Your task to perform on an android device: toggle wifi Image 0: 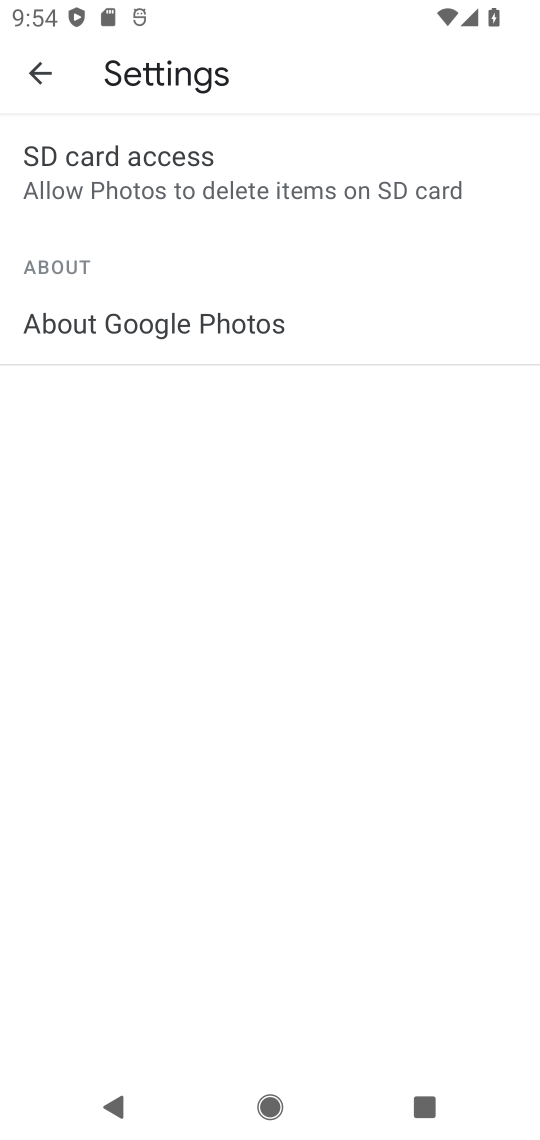
Step 0: press home button
Your task to perform on an android device: toggle wifi Image 1: 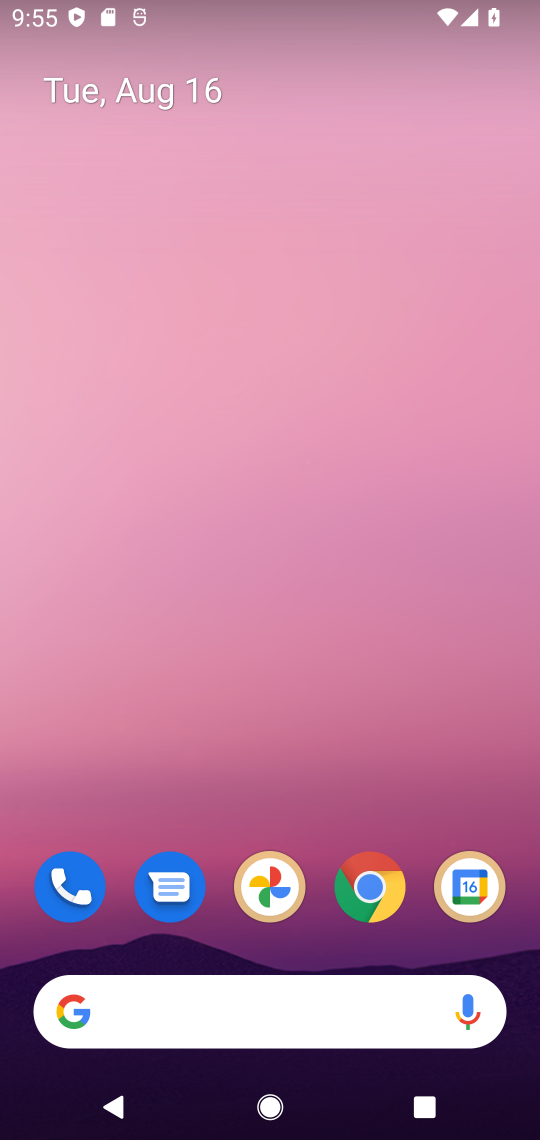
Step 1: drag from (497, 787) to (470, 221)
Your task to perform on an android device: toggle wifi Image 2: 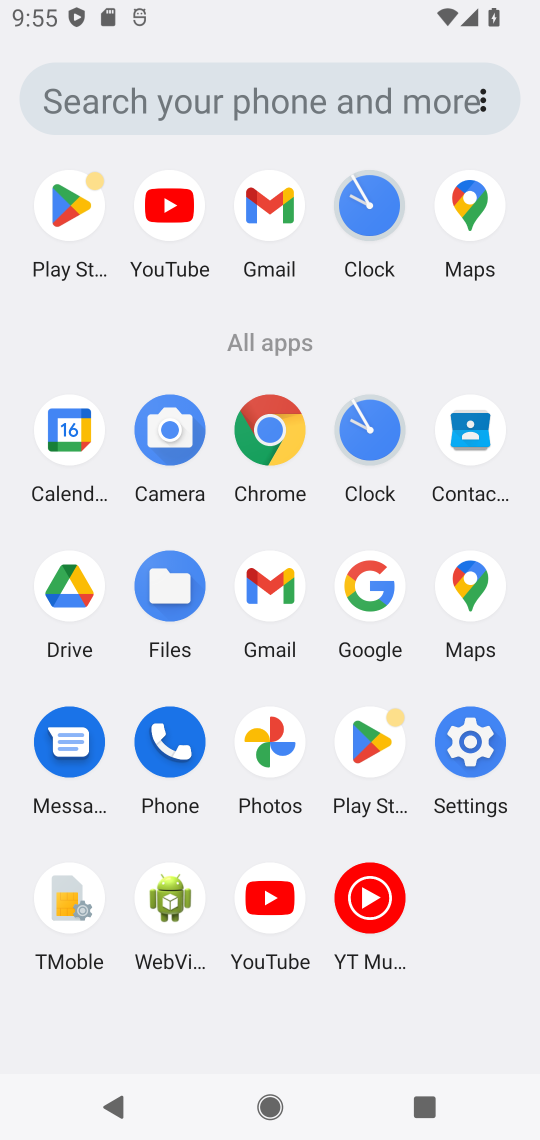
Step 2: click (476, 739)
Your task to perform on an android device: toggle wifi Image 3: 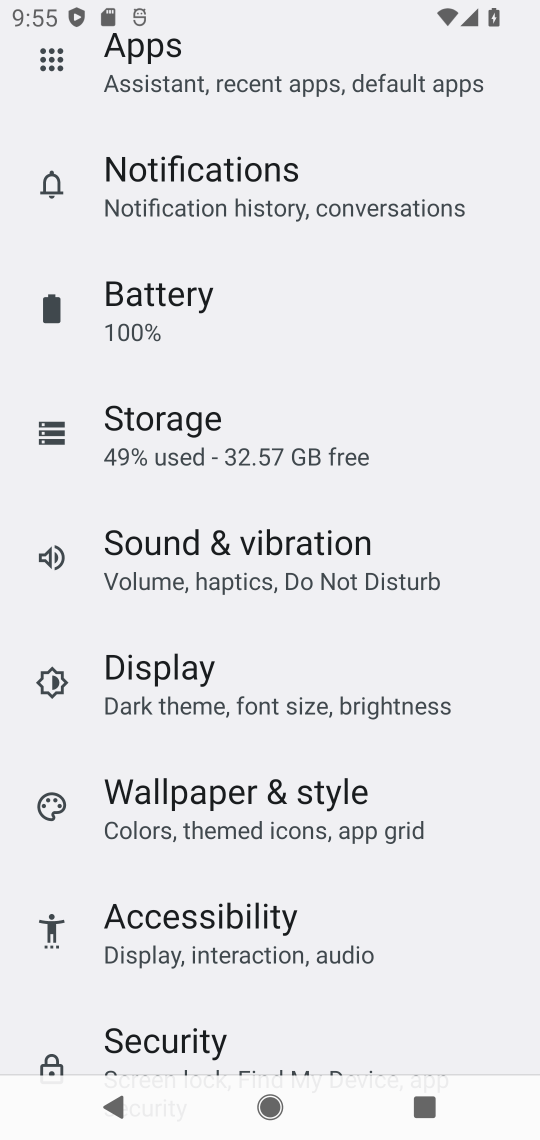
Step 3: drag from (463, 933) to (481, 797)
Your task to perform on an android device: toggle wifi Image 4: 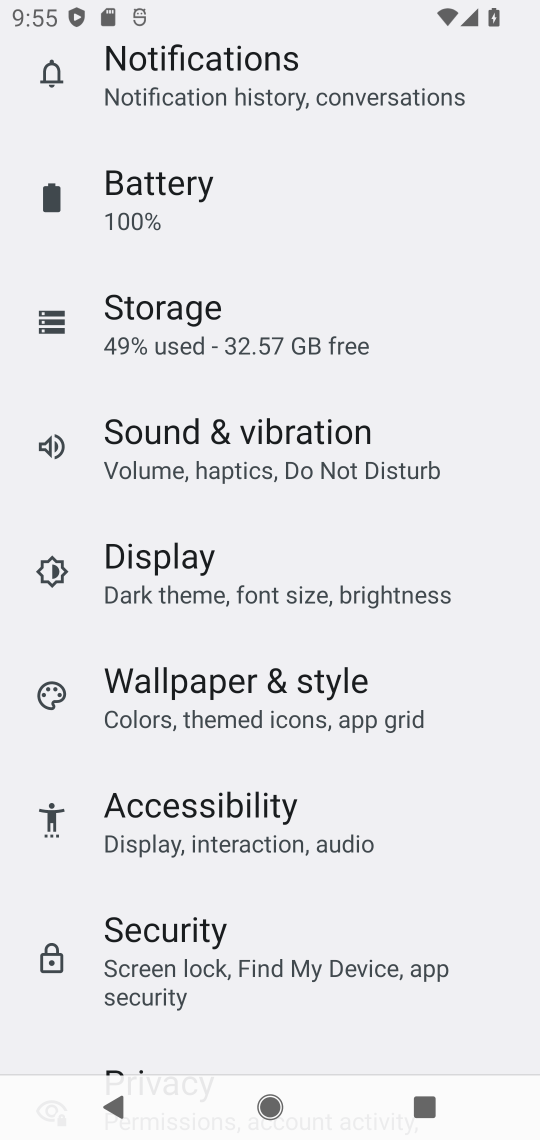
Step 4: drag from (472, 996) to (505, 766)
Your task to perform on an android device: toggle wifi Image 5: 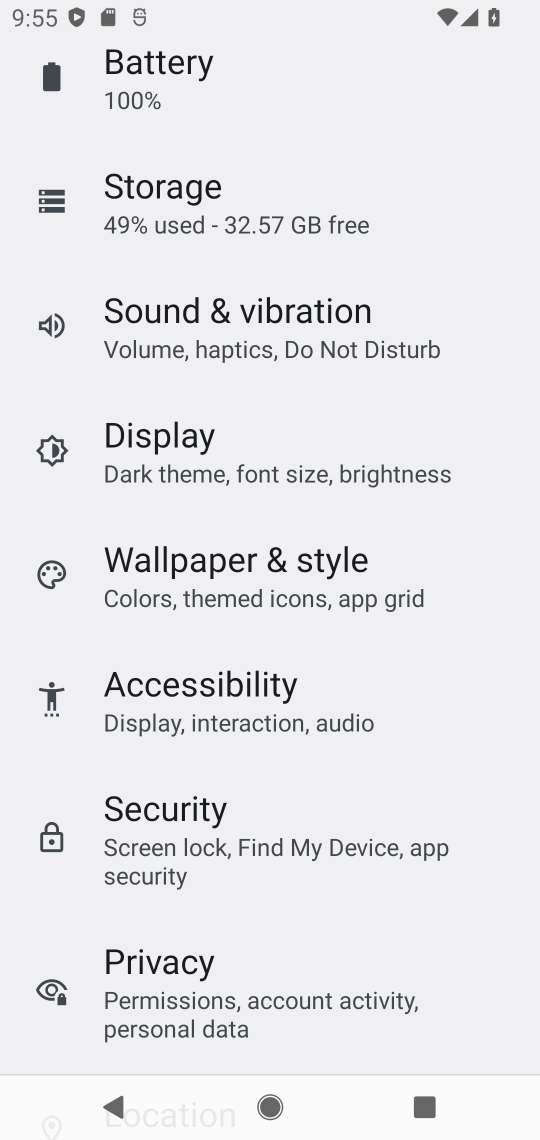
Step 5: drag from (456, 957) to (400, 753)
Your task to perform on an android device: toggle wifi Image 6: 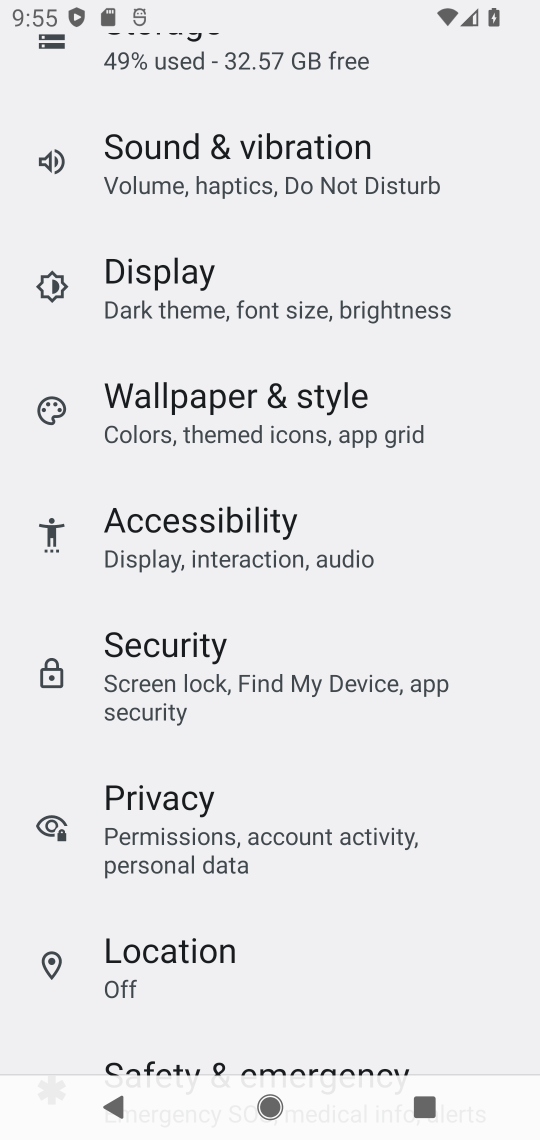
Step 6: drag from (462, 492) to (477, 640)
Your task to perform on an android device: toggle wifi Image 7: 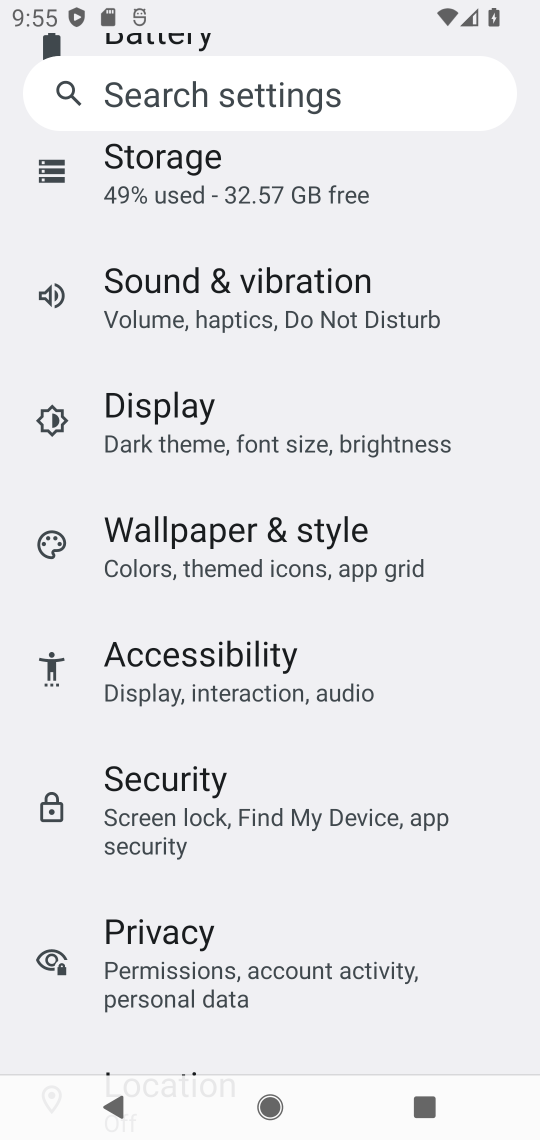
Step 7: drag from (487, 450) to (480, 584)
Your task to perform on an android device: toggle wifi Image 8: 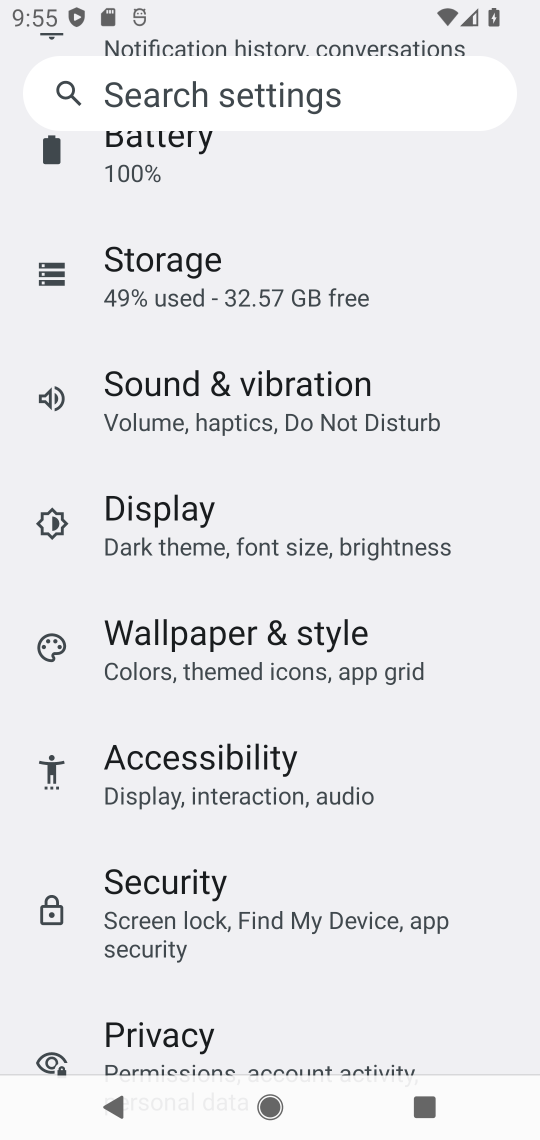
Step 8: drag from (482, 355) to (480, 543)
Your task to perform on an android device: toggle wifi Image 9: 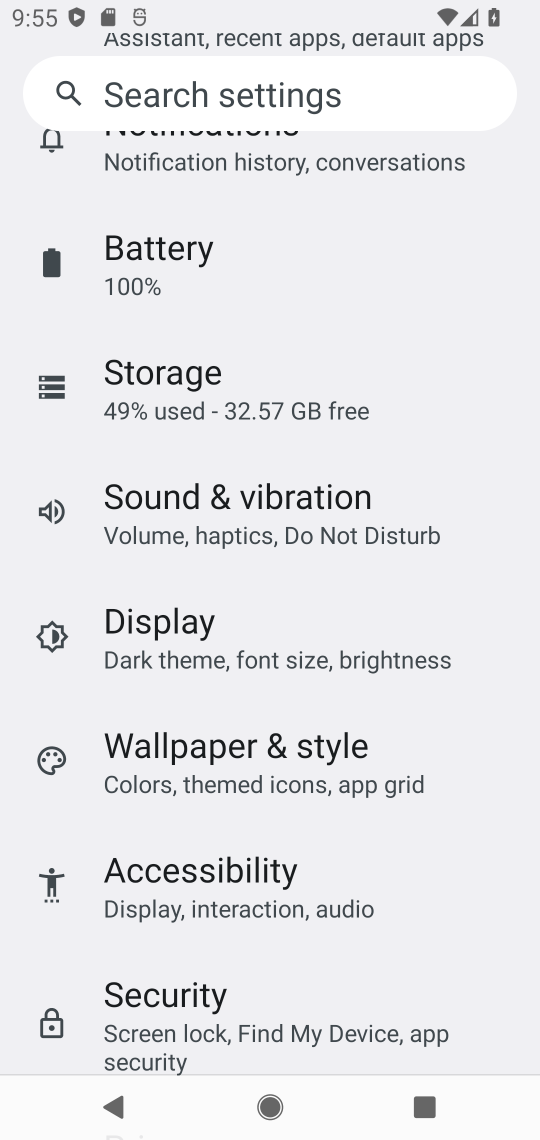
Step 9: drag from (462, 287) to (471, 533)
Your task to perform on an android device: toggle wifi Image 10: 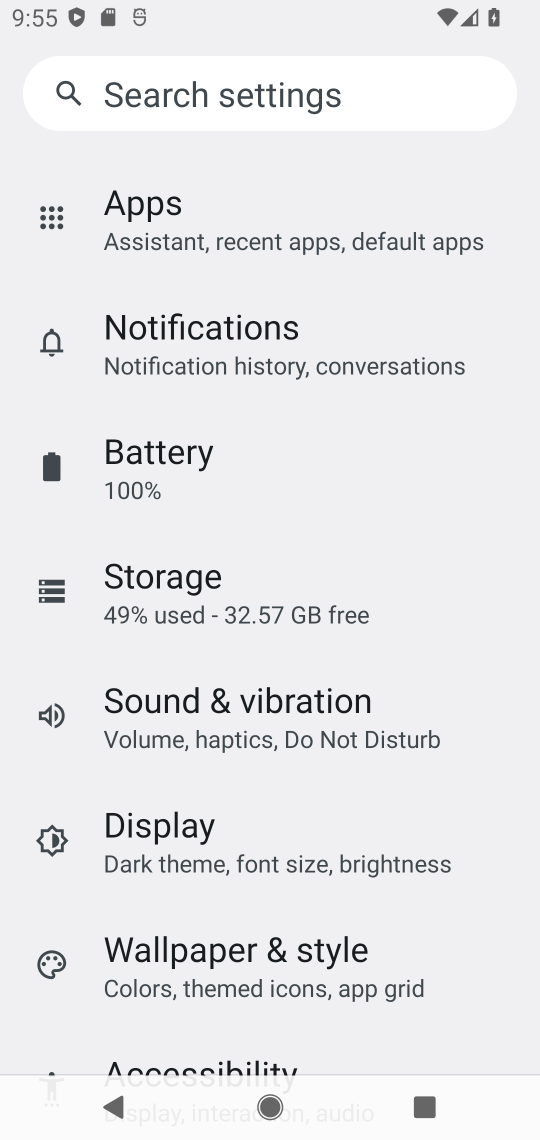
Step 10: drag from (470, 230) to (480, 581)
Your task to perform on an android device: toggle wifi Image 11: 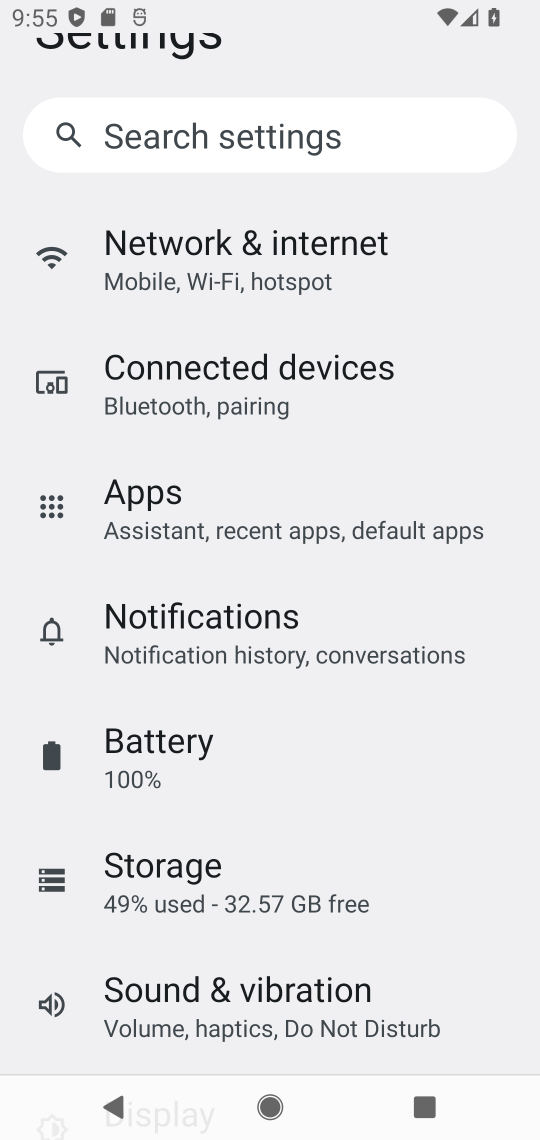
Step 11: click (307, 255)
Your task to perform on an android device: toggle wifi Image 12: 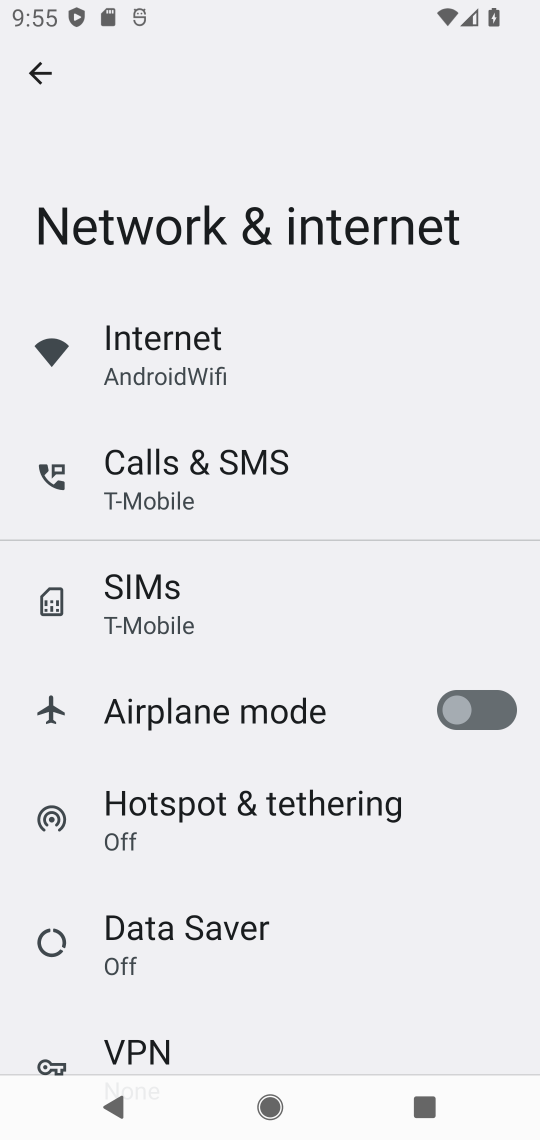
Step 12: click (221, 360)
Your task to perform on an android device: toggle wifi Image 13: 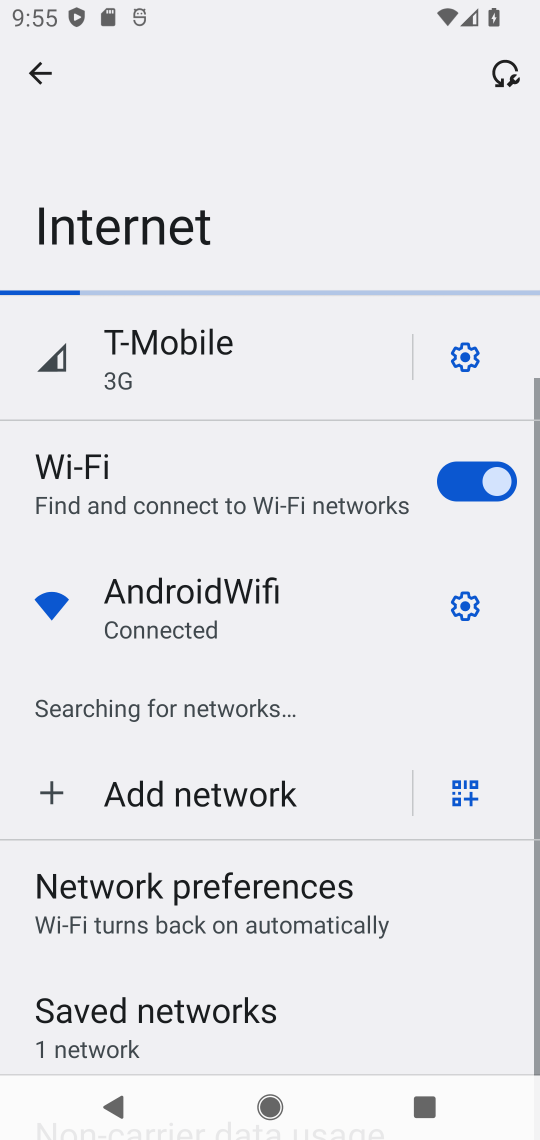
Step 13: click (467, 477)
Your task to perform on an android device: toggle wifi Image 14: 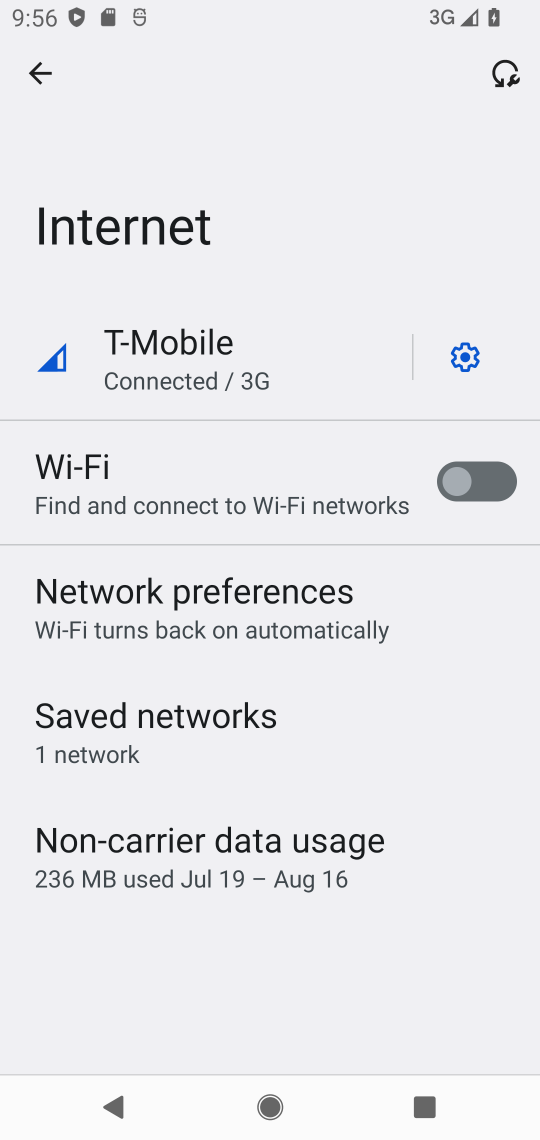
Step 14: task complete